Your task to perform on an android device: Is it going to rain tomorrow? Image 0: 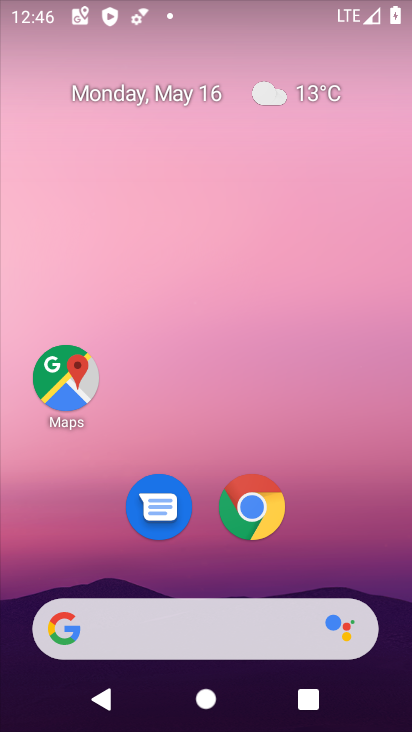
Step 0: click (312, 100)
Your task to perform on an android device: Is it going to rain tomorrow? Image 1: 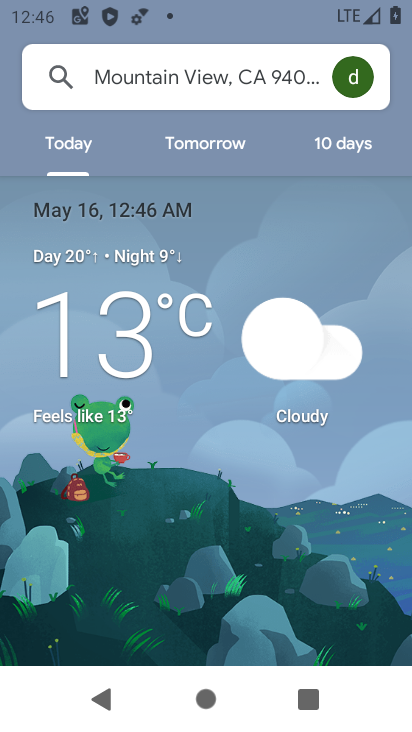
Step 1: click (230, 145)
Your task to perform on an android device: Is it going to rain tomorrow? Image 2: 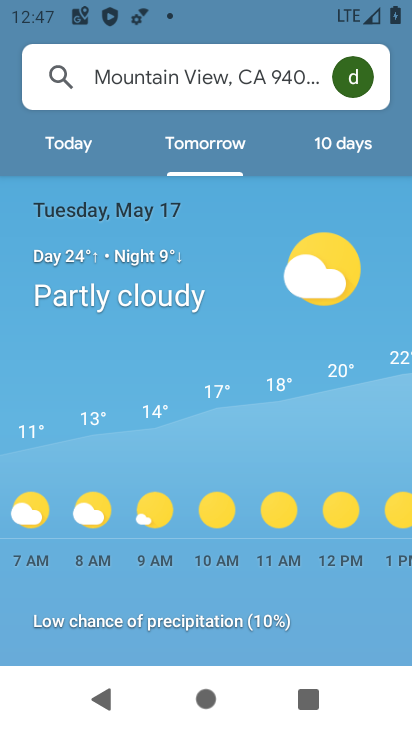
Step 2: task complete